Your task to perform on an android device: Go to display settings Image 0: 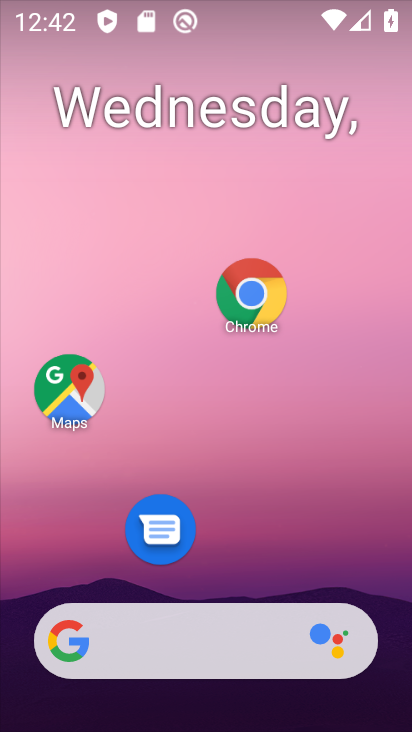
Step 0: drag from (287, 458) to (325, 27)
Your task to perform on an android device: Go to display settings Image 1: 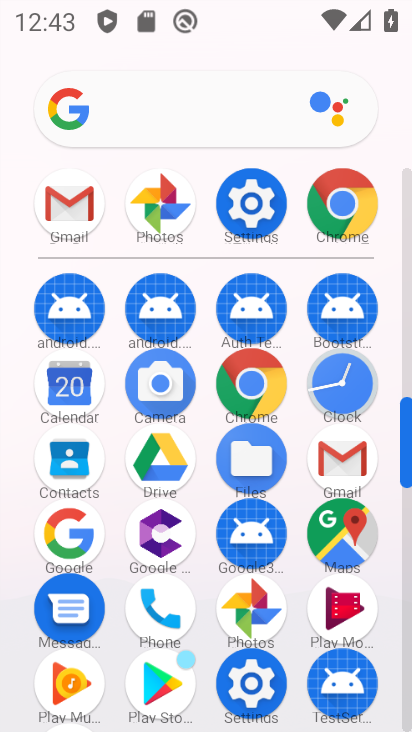
Step 1: click (263, 199)
Your task to perform on an android device: Go to display settings Image 2: 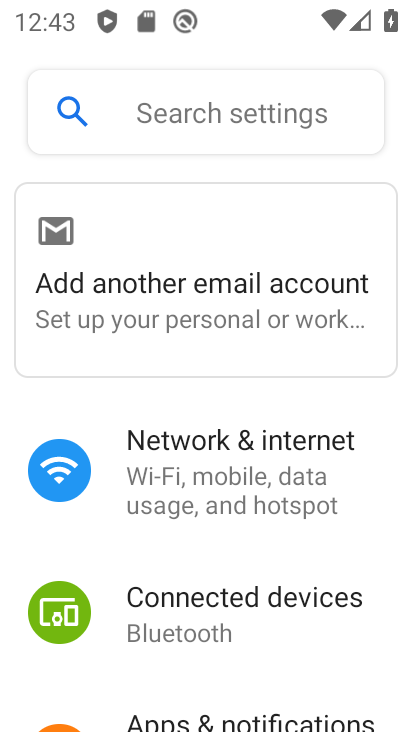
Step 2: drag from (258, 543) to (301, 220)
Your task to perform on an android device: Go to display settings Image 3: 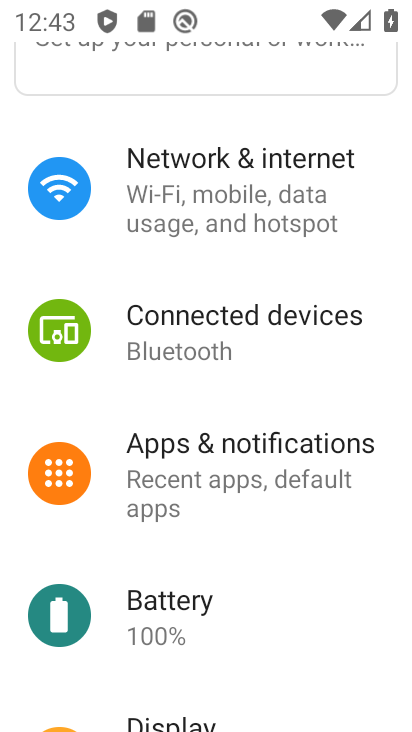
Step 3: drag from (265, 484) to (334, 139)
Your task to perform on an android device: Go to display settings Image 4: 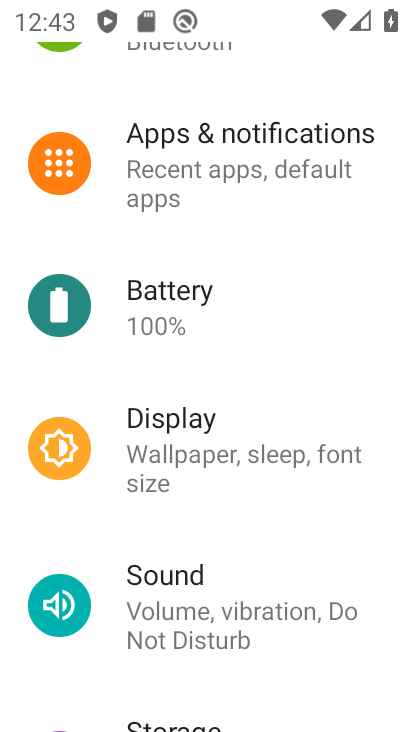
Step 4: click (232, 460)
Your task to perform on an android device: Go to display settings Image 5: 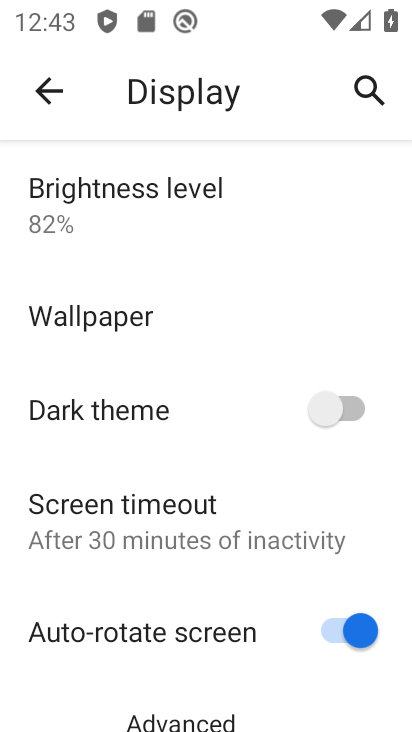
Step 5: drag from (154, 512) to (230, 185)
Your task to perform on an android device: Go to display settings Image 6: 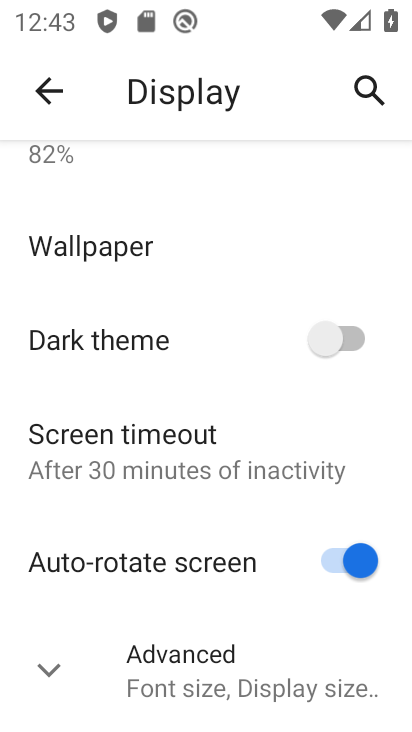
Step 6: click (169, 682)
Your task to perform on an android device: Go to display settings Image 7: 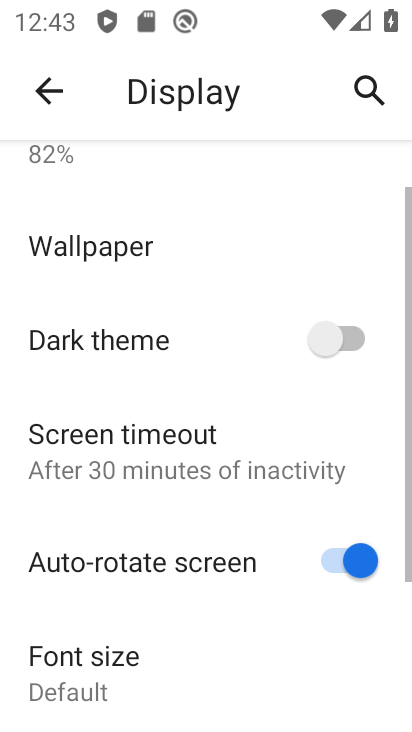
Step 7: task complete